Your task to perform on an android device: Open privacy settings Image 0: 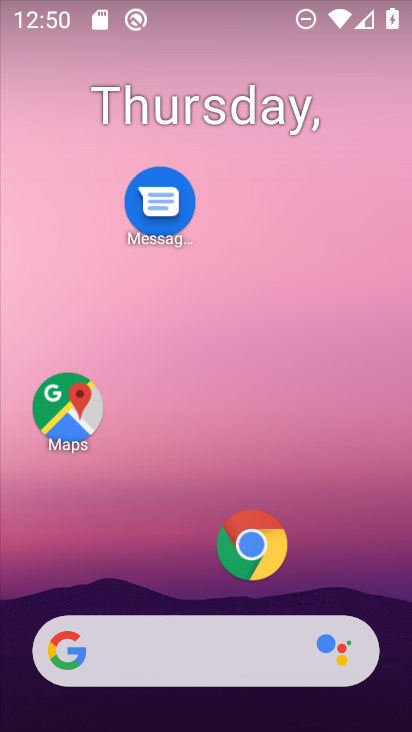
Step 0: drag from (188, 585) to (189, 182)
Your task to perform on an android device: Open privacy settings Image 1: 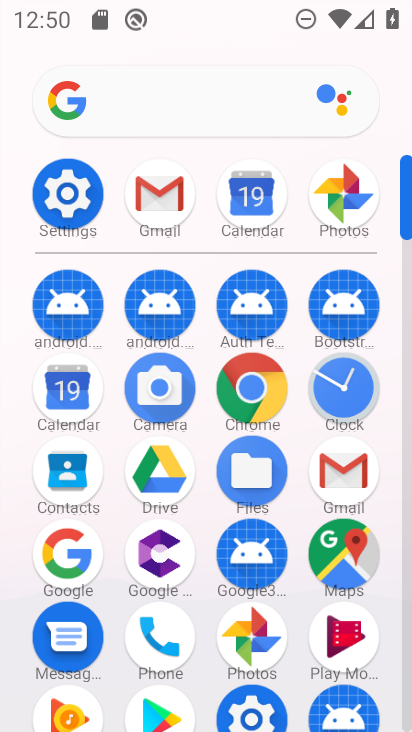
Step 1: click (63, 178)
Your task to perform on an android device: Open privacy settings Image 2: 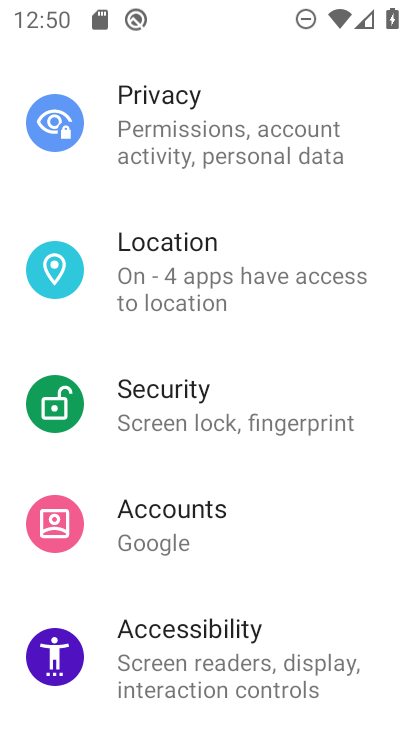
Step 2: drag from (212, 566) to (201, 242)
Your task to perform on an android device: Open privacy settings Image 3: 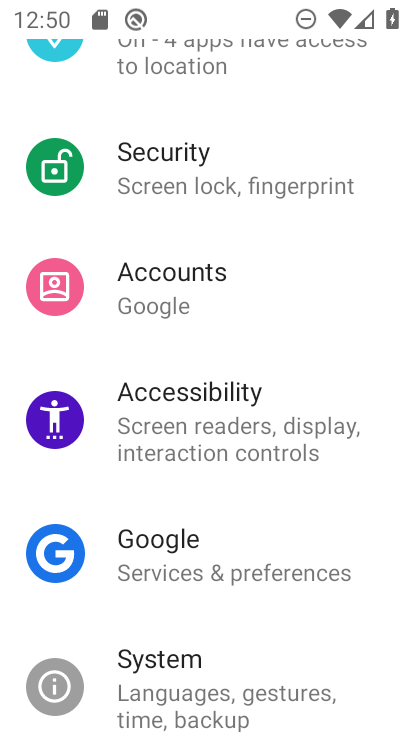
Step 3: drag from (195, 561) to (198, 279)
Your task to perform on an android device: Open privacy settings Image 4: 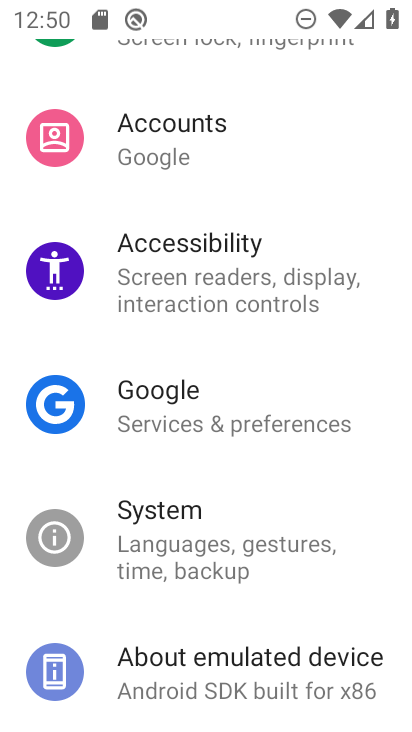
Step 4: drag from (196, 520) to (203, 305)
Your task to perform on an android device: Open privacy settings Image 5: 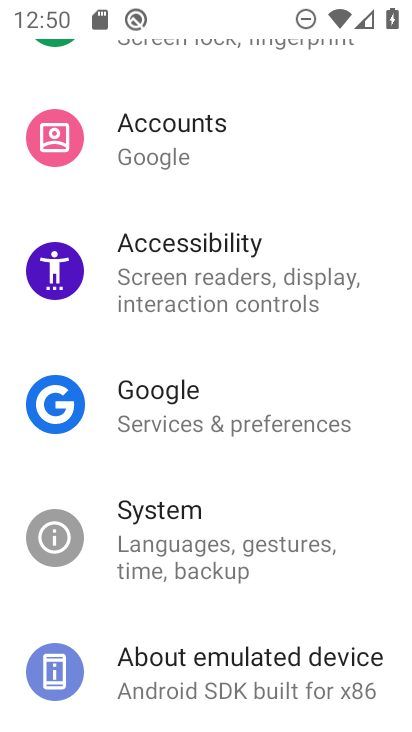
Step 5: drag from (199, 252) to (197, 483)
Your task to perform on an android device: Open privacy settings Image 6: 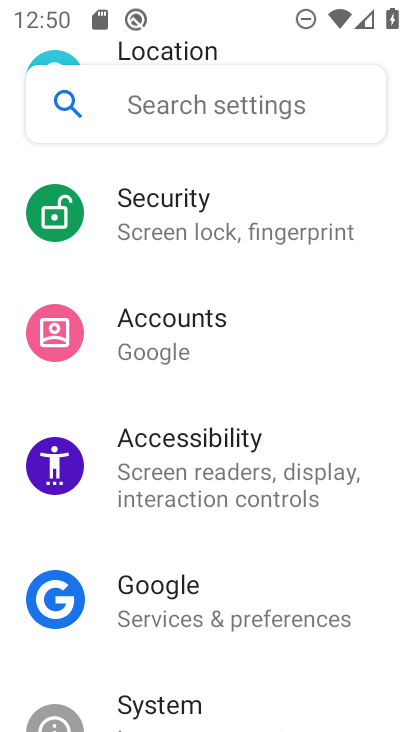
Step 6: drag from (181, 269) to (192, 477)
Your task to perform on an android device: Open privacy settings Image 7: 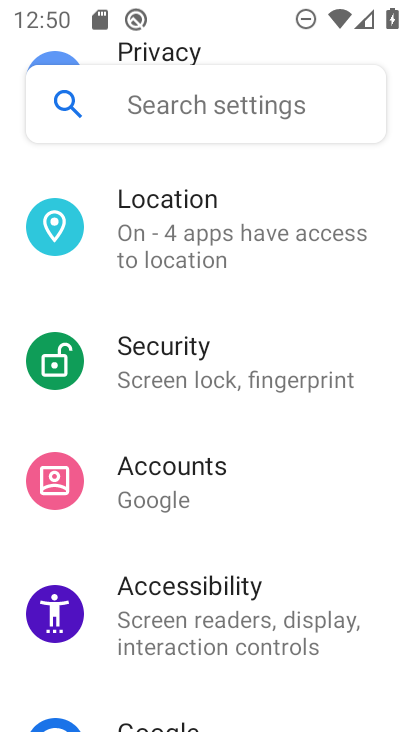
Step 7: drag from (181, 340) to (181, 499)
Your task to perform on an android device: Open privacy settings Image 8: 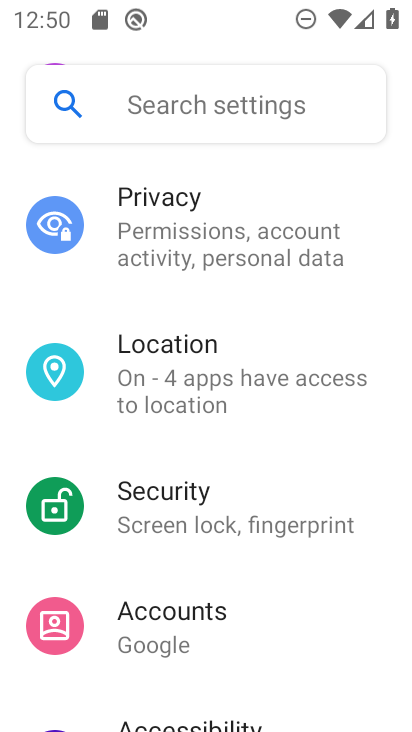
Step 8: click (167, 246)
Your task to perform on an android device: Open privacy settings Image 9: 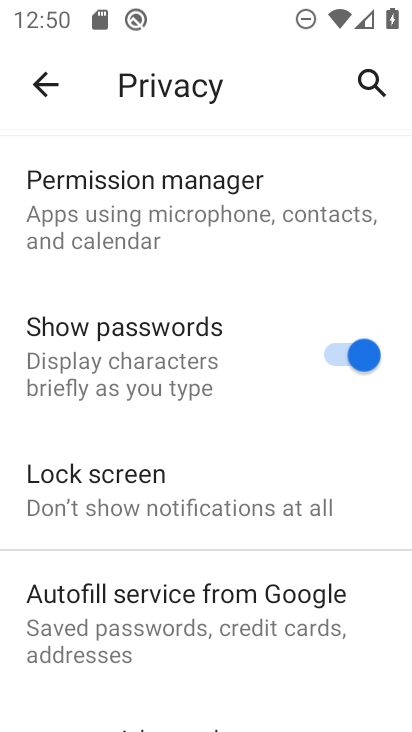
Step 9: task complete